Your task to perform on an android device: open chrome and create a bookmark for the current page Image 0: 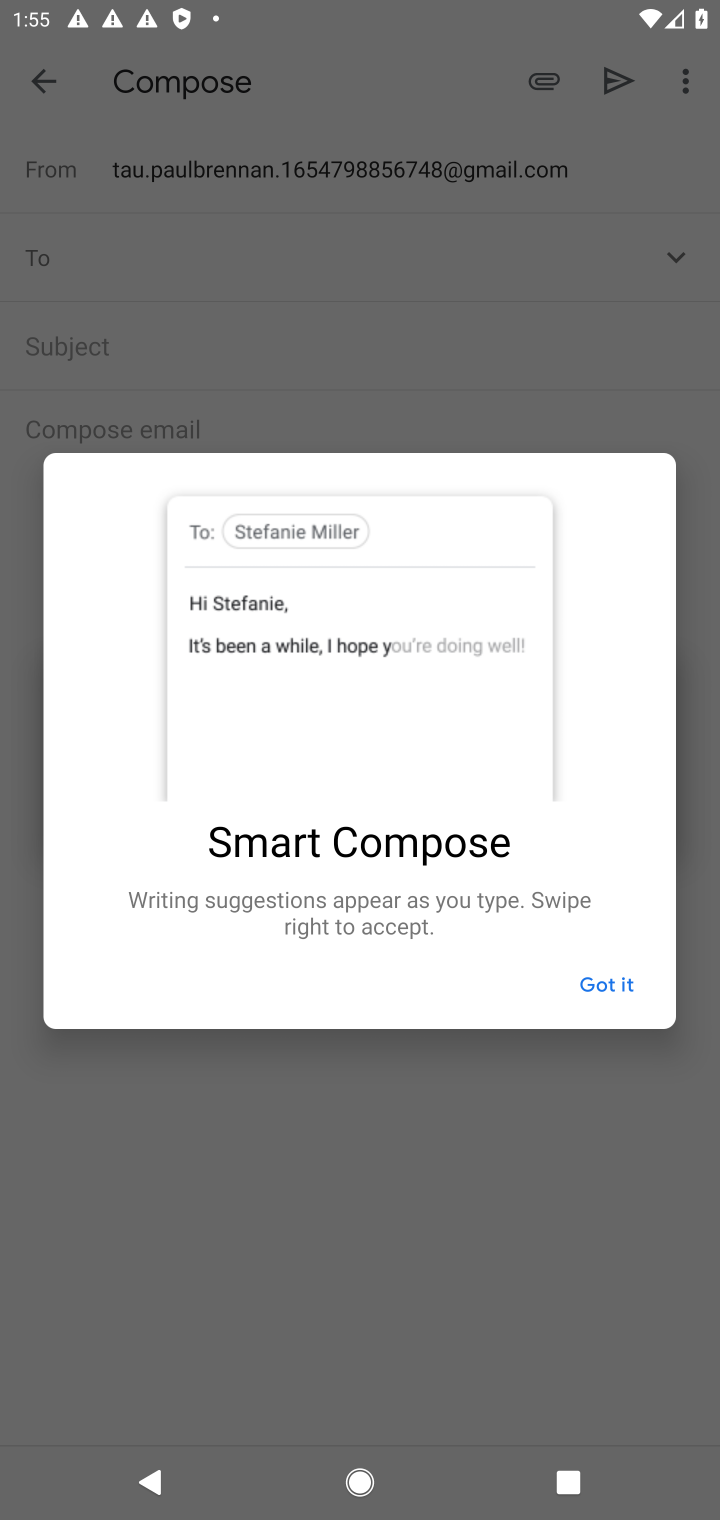
Step 0: press home button
Your task to perform on an android device: open chrome and create a bookmark for the current page Image 1: 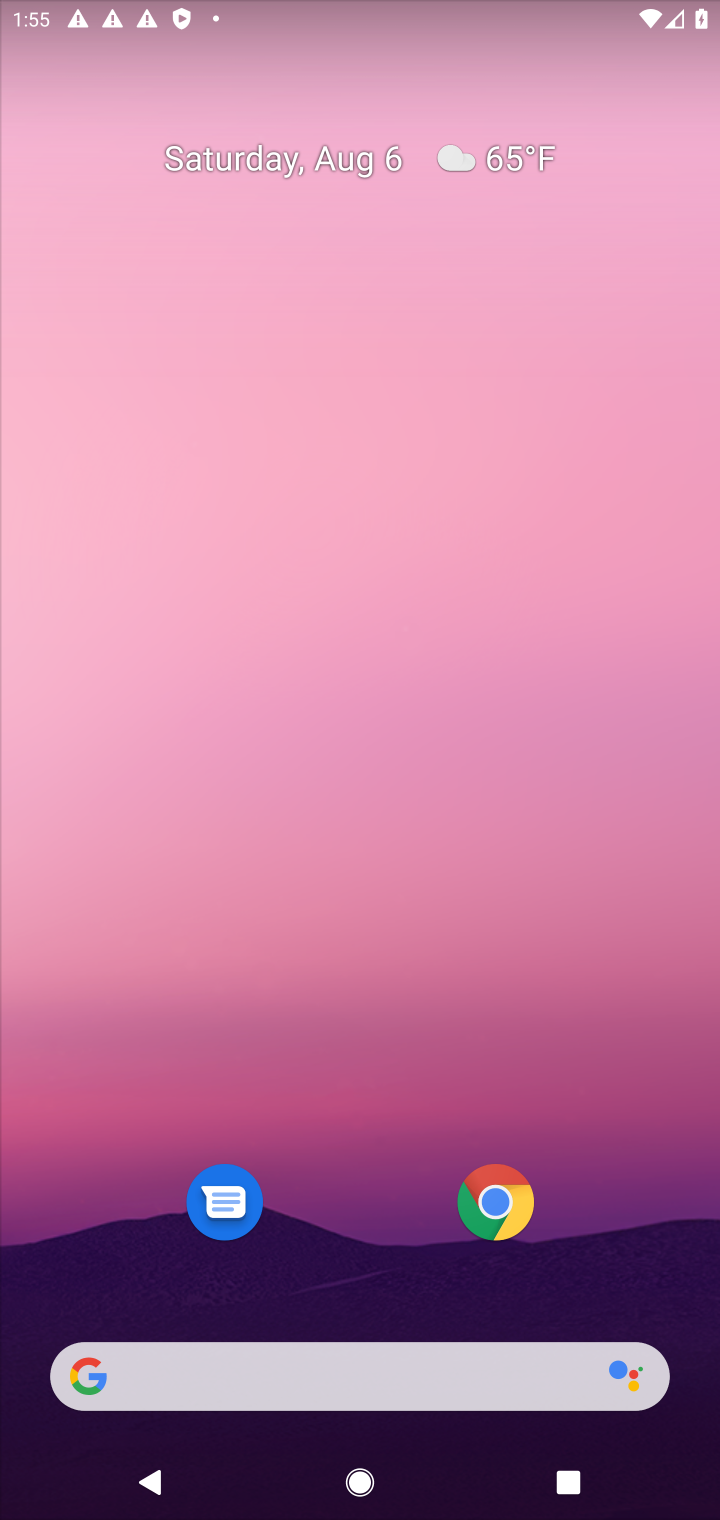
Step 1: click (466, 1213)
Your task to perform on an android device: open chrome and create a bookmark for the current page Image 2: 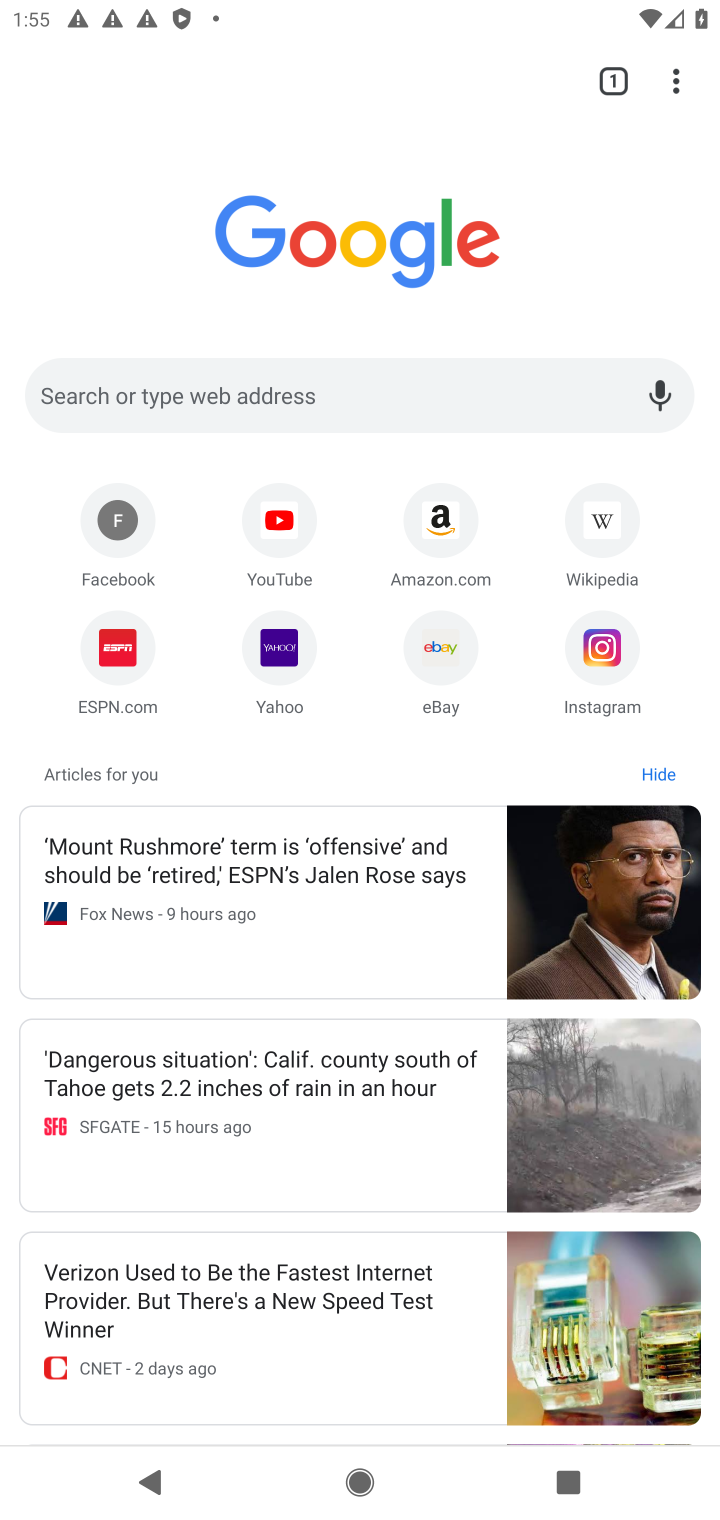
Step 2: click (681, 84)
Your task to perform on an android device: open chrome and create a bookmark for the current page Image 3: 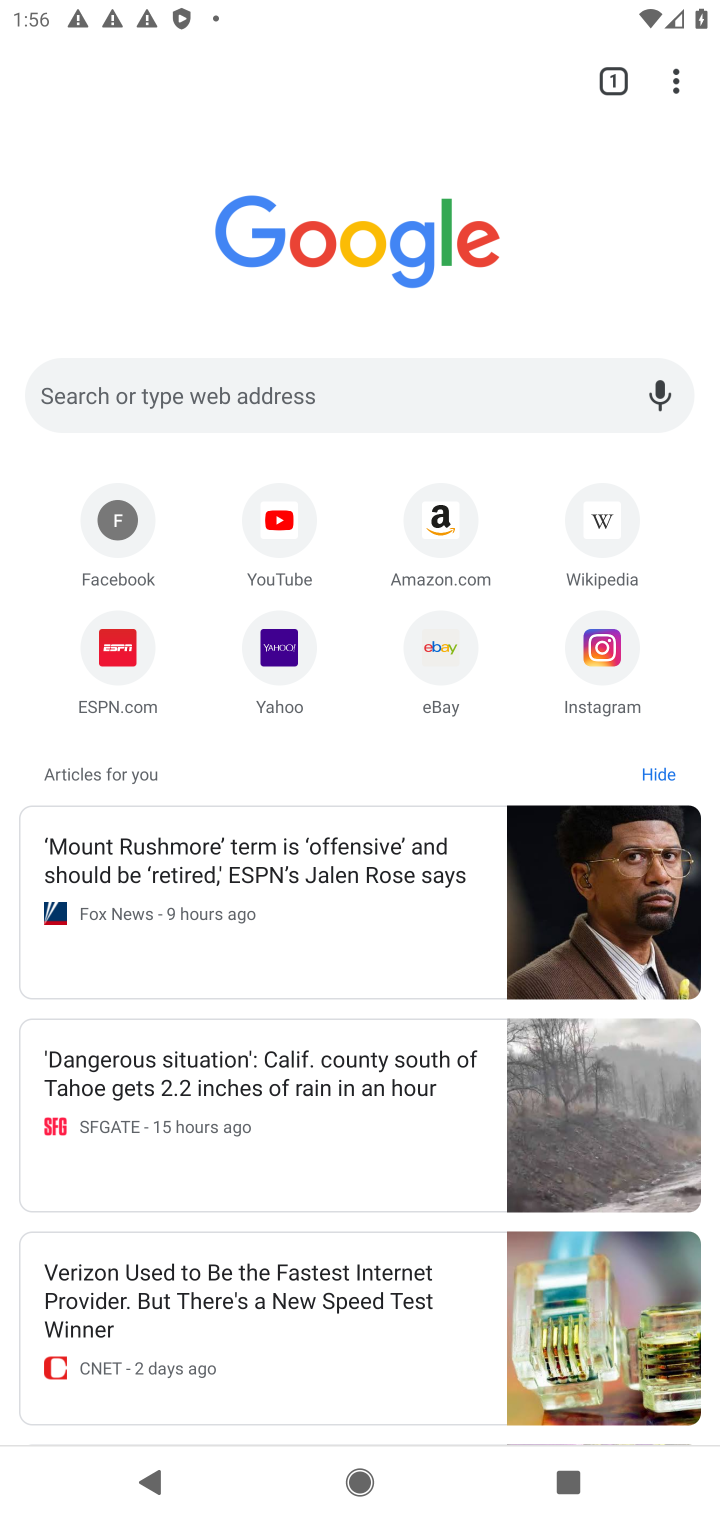
Step 3: click (668, 71)
Your task to perform on an android device: open chrome and create a bookmark for the current page Image 4: 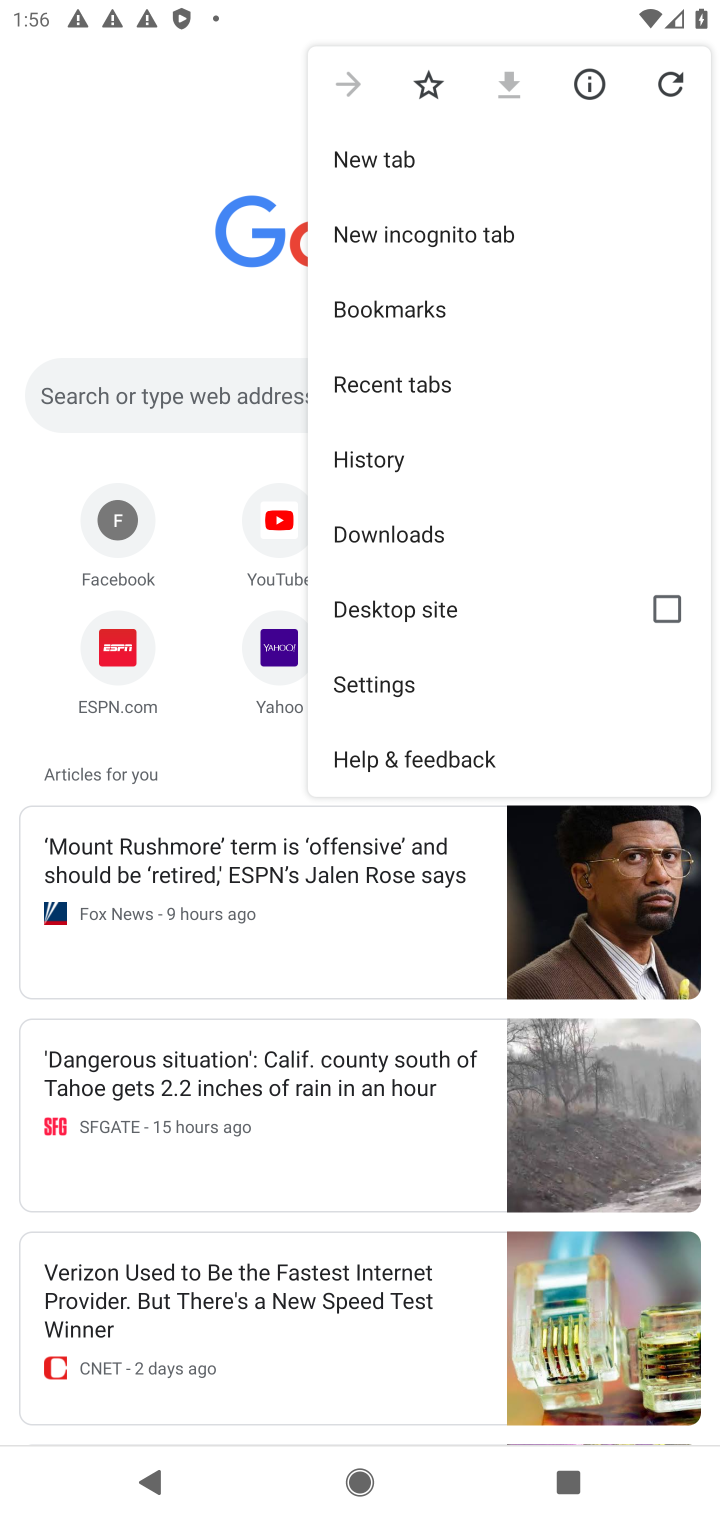
Step 4: click (433, 75)
Your task to perform on an android device: open chrome and create a bookmark for the current page Image 5: 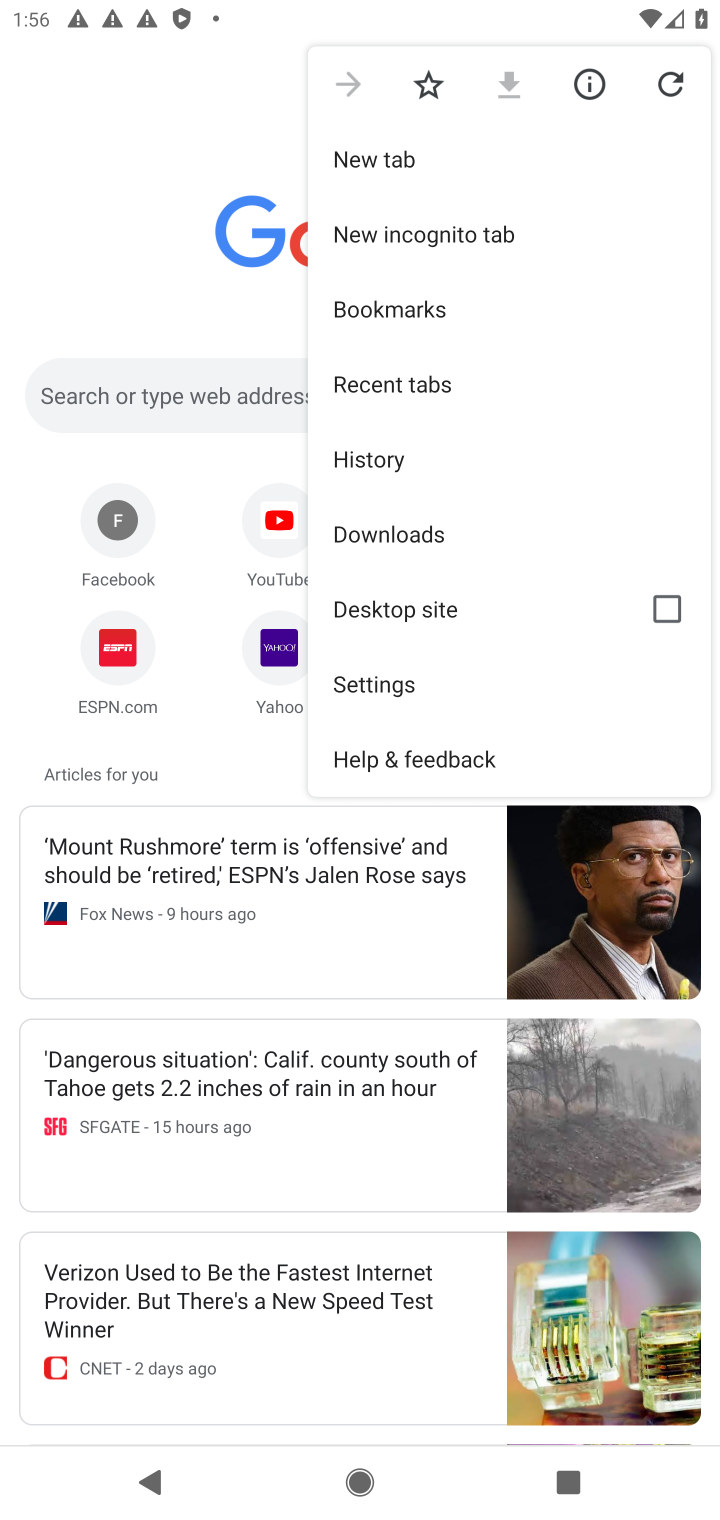
Step 5: click (431, 82)
Your task to perform on an android device: open chrome and create a bookmark for the current page Image 6: 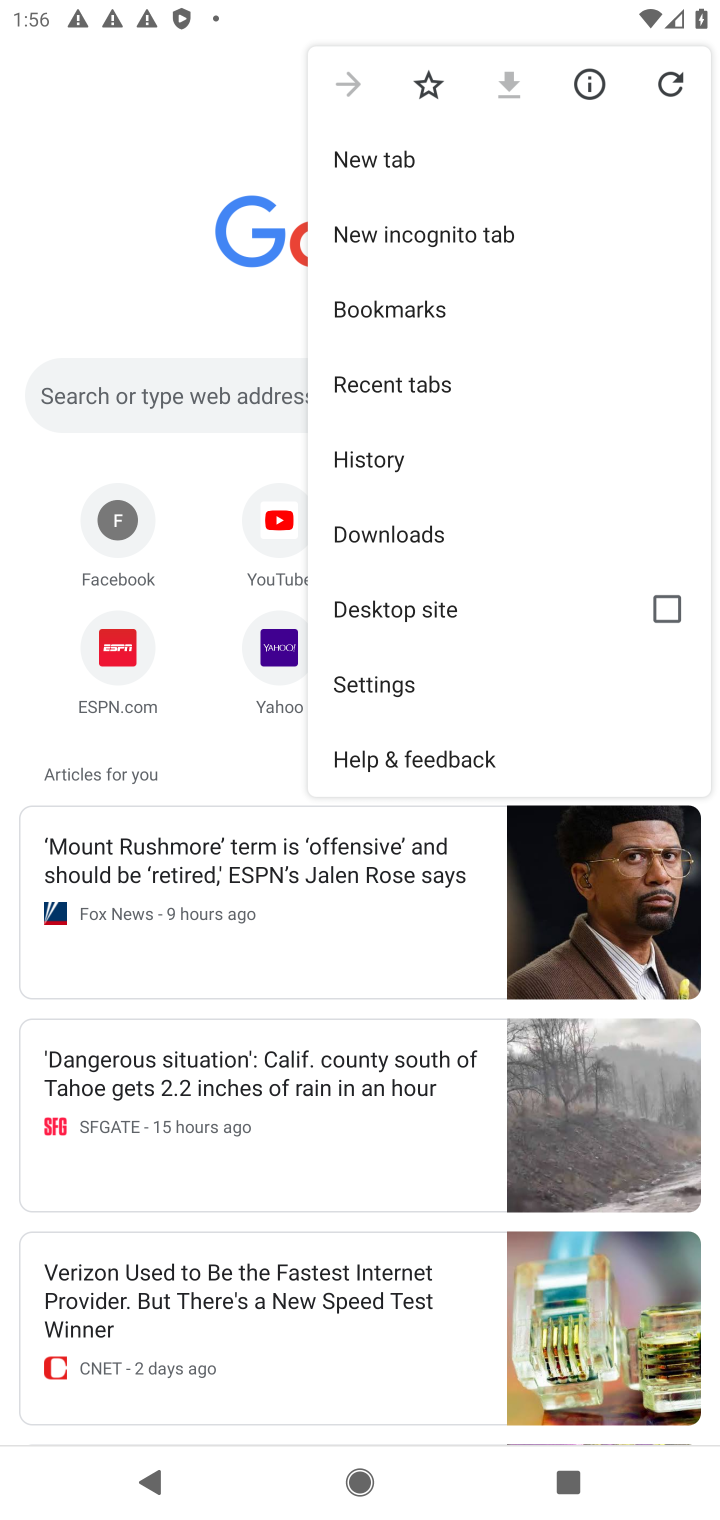
Step 6: click (438, 84)
Your task to perform on an android device: open chrome and create a bookmark for the current page Image 7: 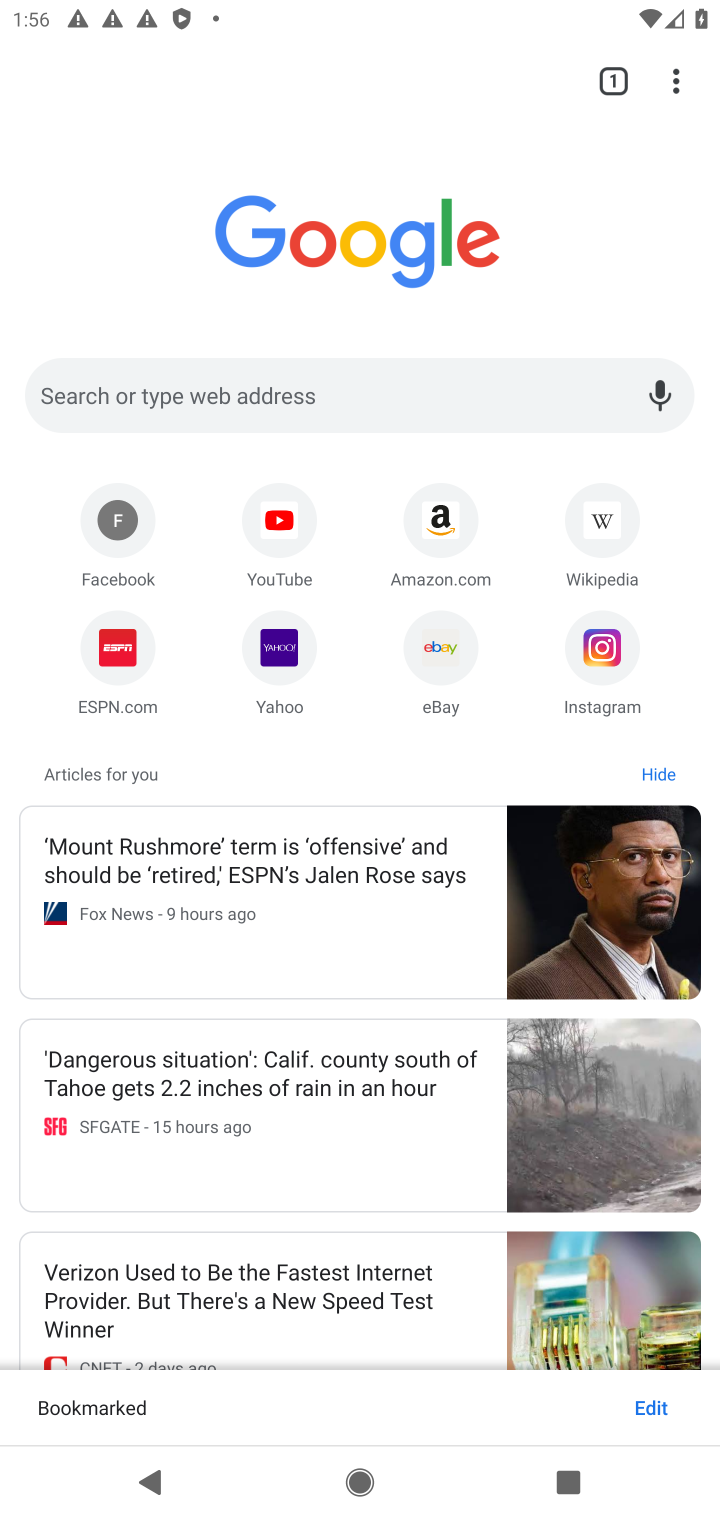
Step 7: task complete